Your task to perform on an android device: Open Chrome and go to the settings page Image 0: 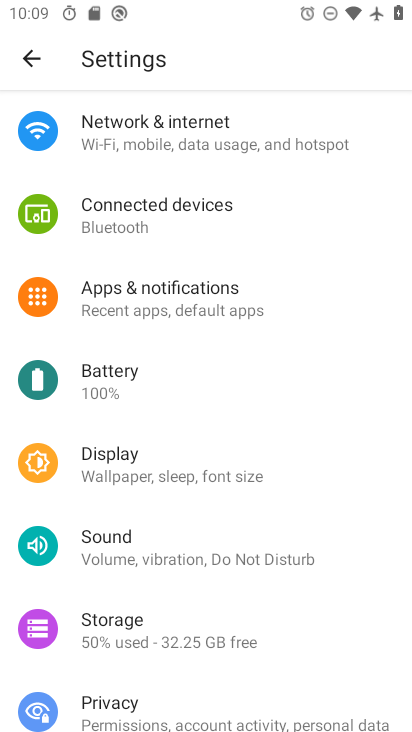
Step 0: press home button
Your task to perform on an android device: Open Chrome and go to the settings page Image 1: 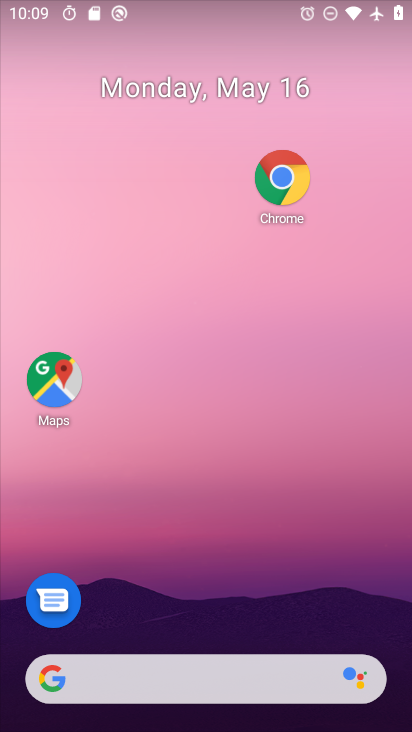
Step 1: drag from (184, 691) to (348, 94)
Your task to perform on an android device: Open Chrome and go to the settings page Image 2: 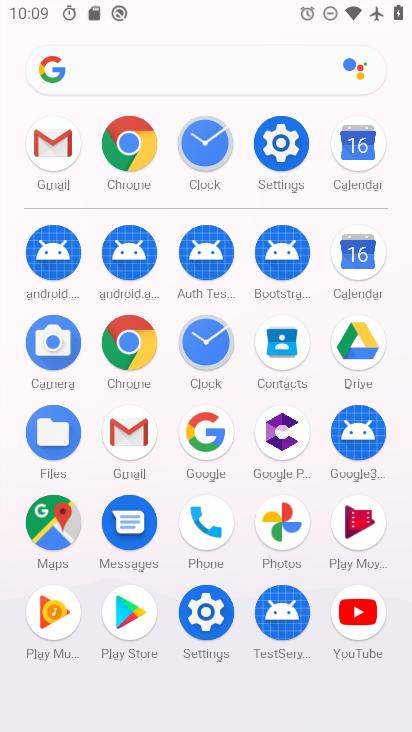
Step 2: click (136, 153)
Your task to perform on an android device: Open Chrome and go to the settings page Image 3: 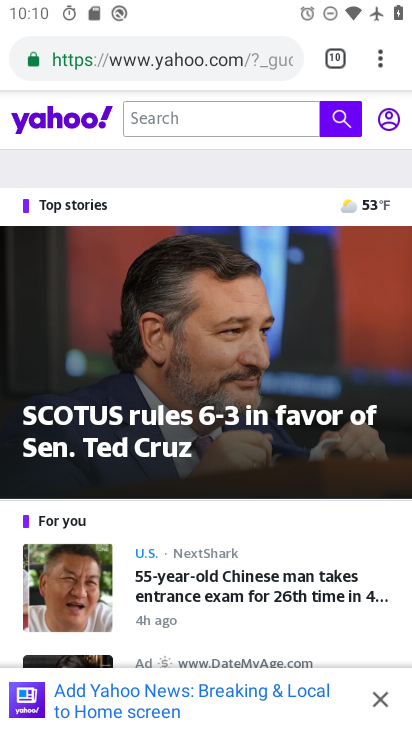
Step 3: task complete